Your task to perform on an android device: Go to ESPN.com Image 0: 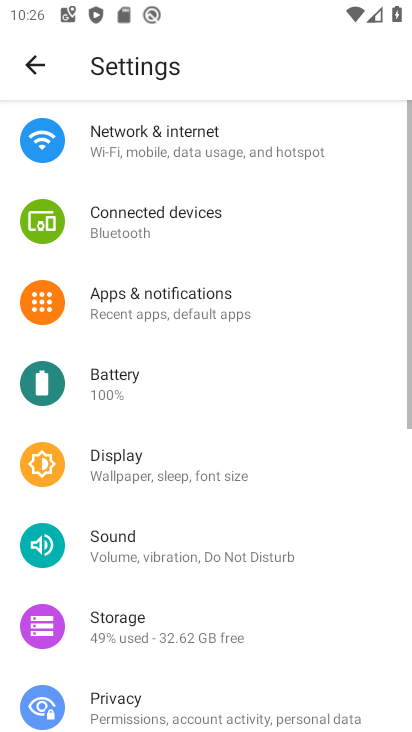
Step 0: press home button
Your task to perform on an android device: Go to ESPN.com Image 1: 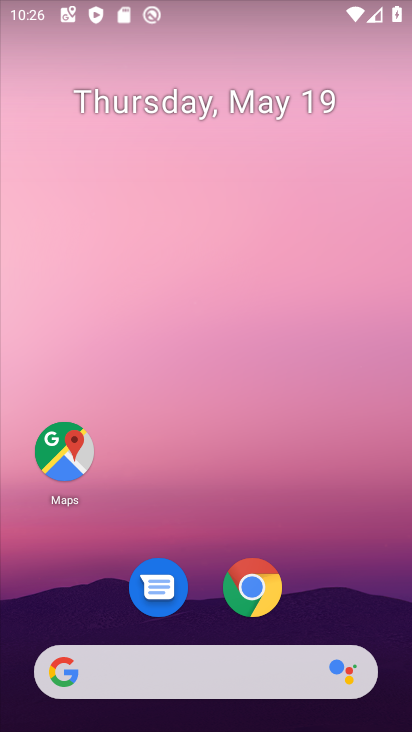
Step 1: drag from (388, 588) to (335, 165)
Your task to perform on an android device: Go to ESPN.com Image 2: 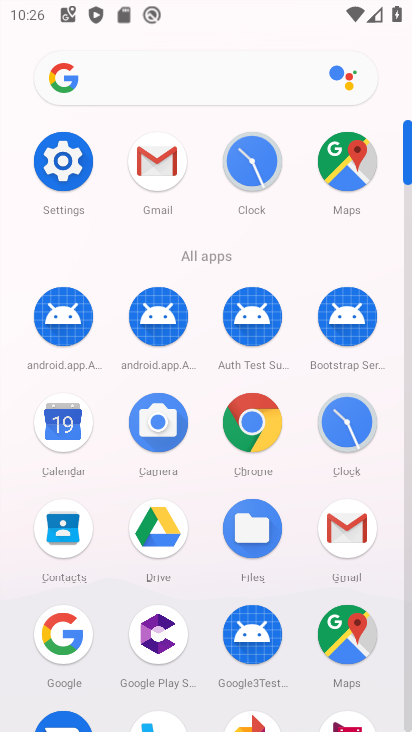
Step 2: click (255, 464)
Your task to perform on an android device: Go to ESPN.com Image 3: 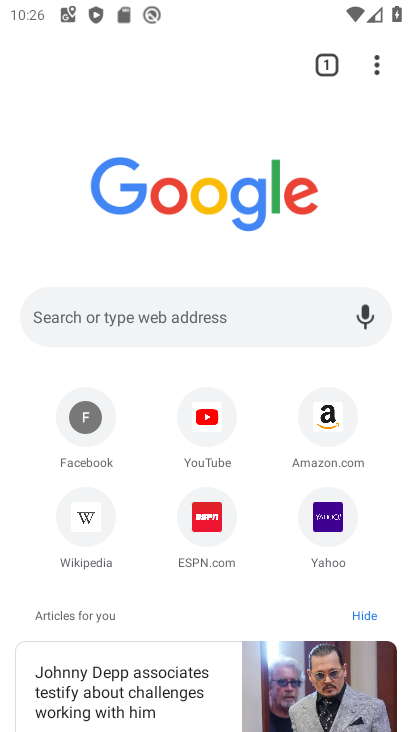
Step 3: click (173, 330)
Your task to perform on an android device: Go to ESPN.com Image 4: 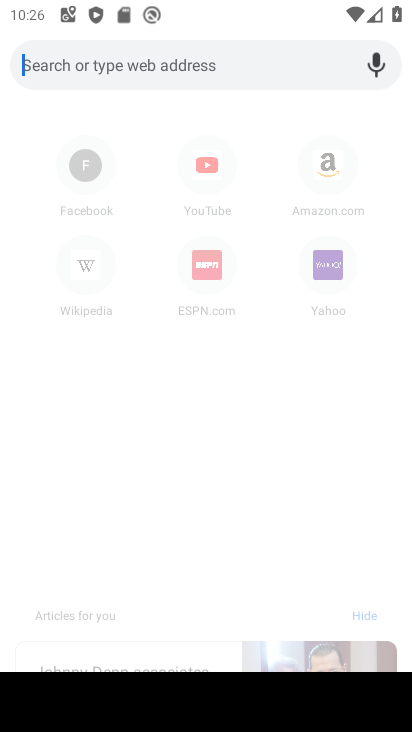
Step 4: type "espn.com"
Your task to perform on an android device: Go to ESPN.com Image 5: 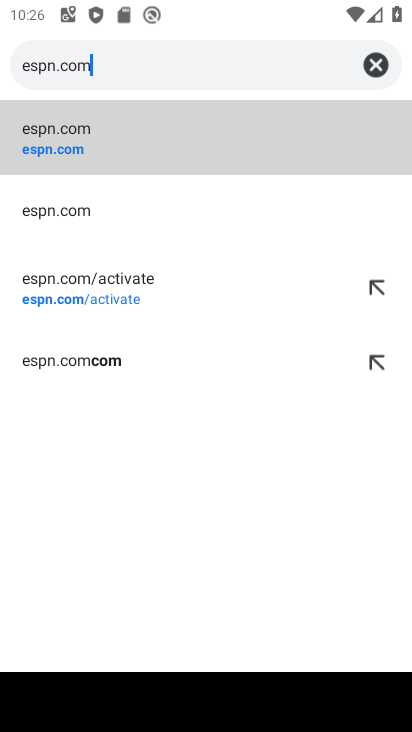
Step 5: click (65, 165)
Your task to perform on an android device: Go to ESPN.com Image 6: 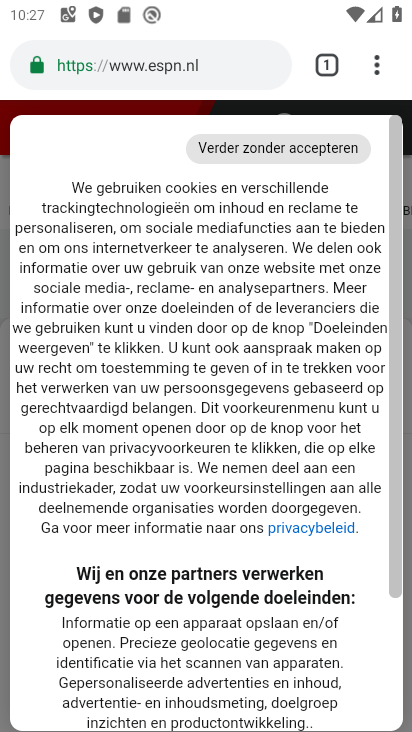
Step 6: task complete